Your task to perform on an android device: Open Google Chrome Image 0: 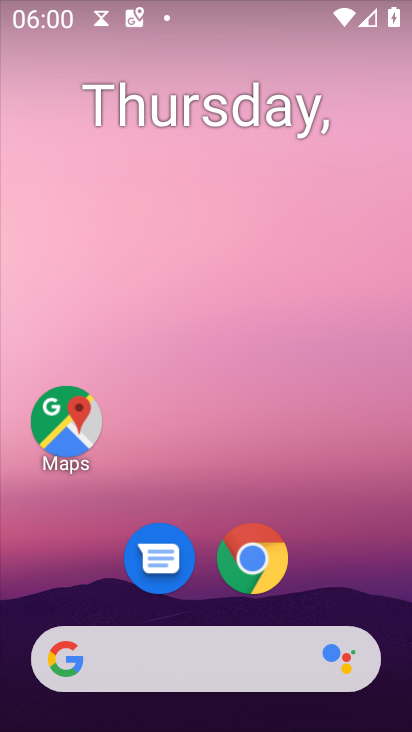
Step 0: click (243, 556)
Your task to perform on an android device: Open Google Chrome Image 1: 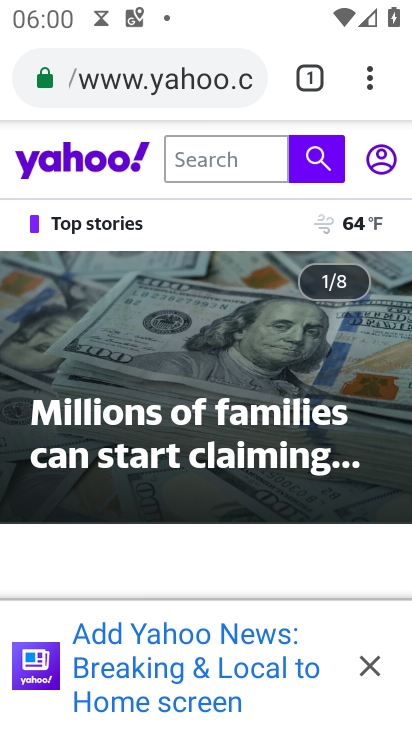
Step 1: task complete